Your task to perform on an android device: When is my next meeting? Image 0: 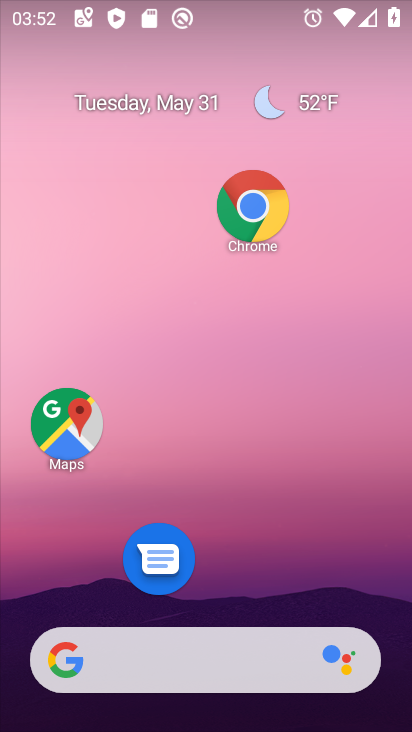
Step 0: drag from (212, 598) to (161, 220)
Your task to perform on an android device: When is my next meeting? Image 1: 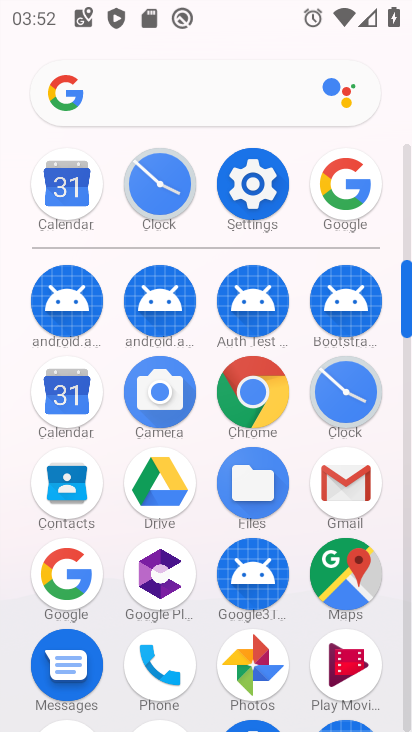
Step 1: click (83, 396)
Your task to perform on an android device: When is my next meeting? Image 2: 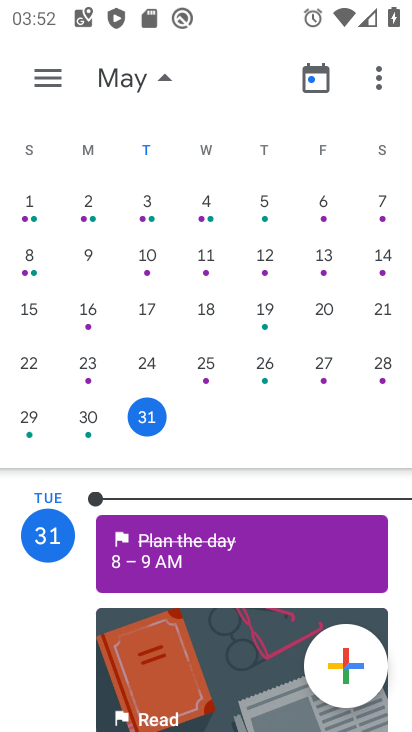
Step 2: task complete